Your task to perform on an android device: turn on translation in the chrome app Image 0: 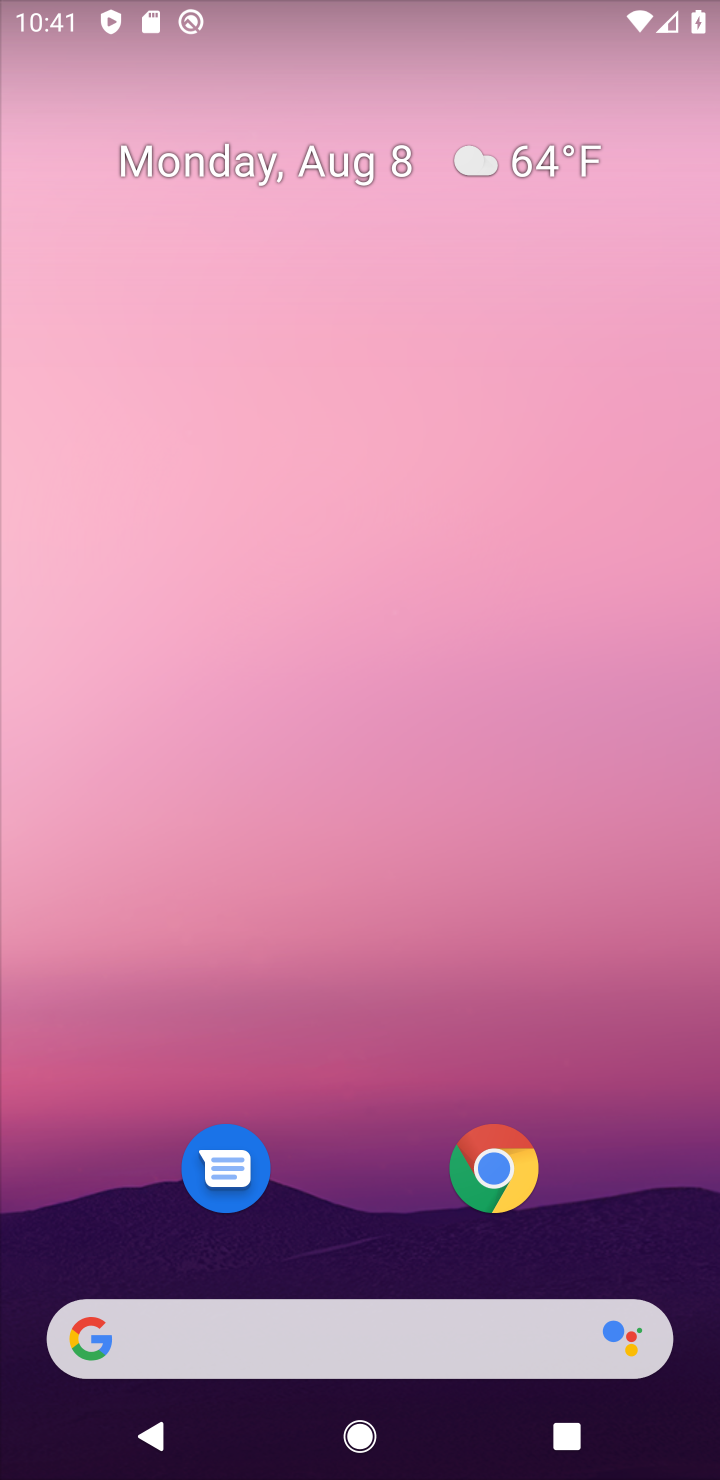
Step 0: click (511, 1171)
Your task to perform on an android device: turn on translation in the chrome app Image 1: 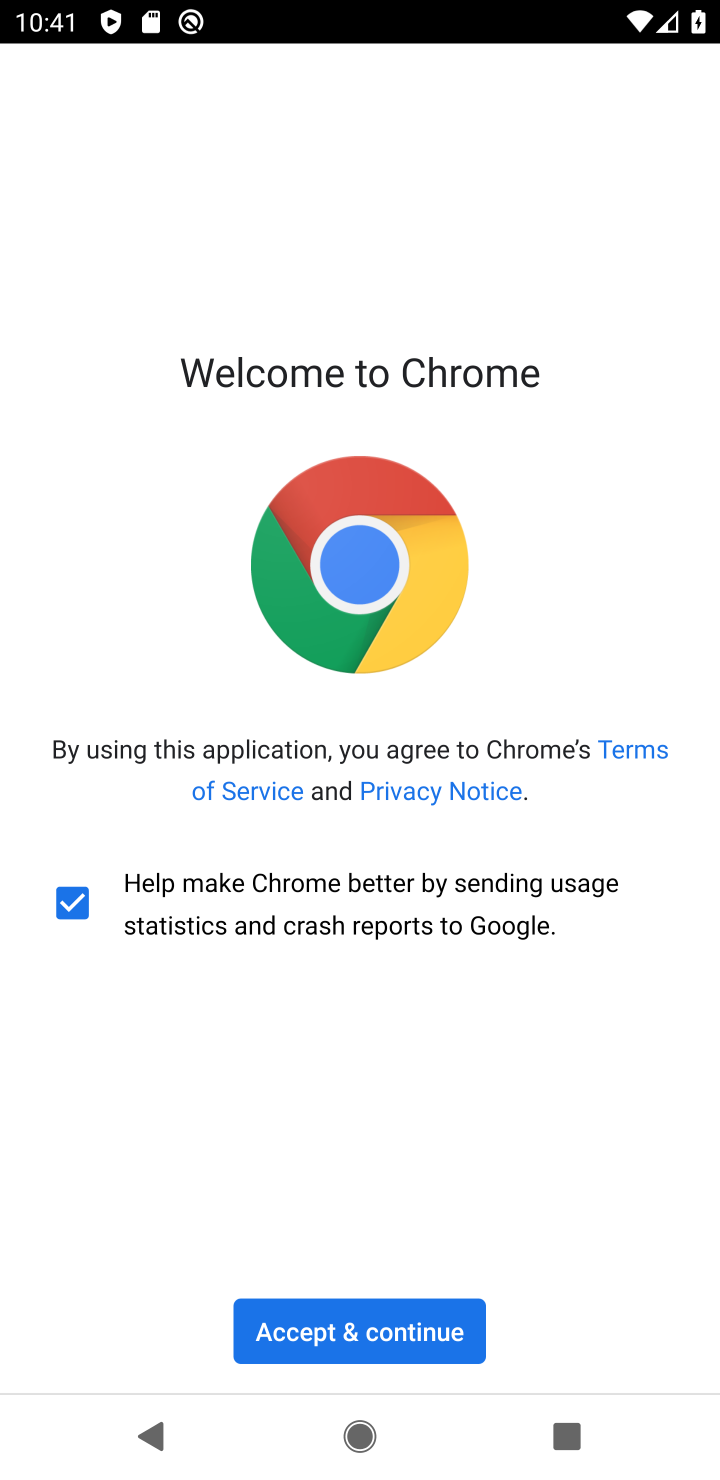
Step 1: click (347, 1327)
Your task to perform on an android device: turn on translation in the chrome app Image 2: 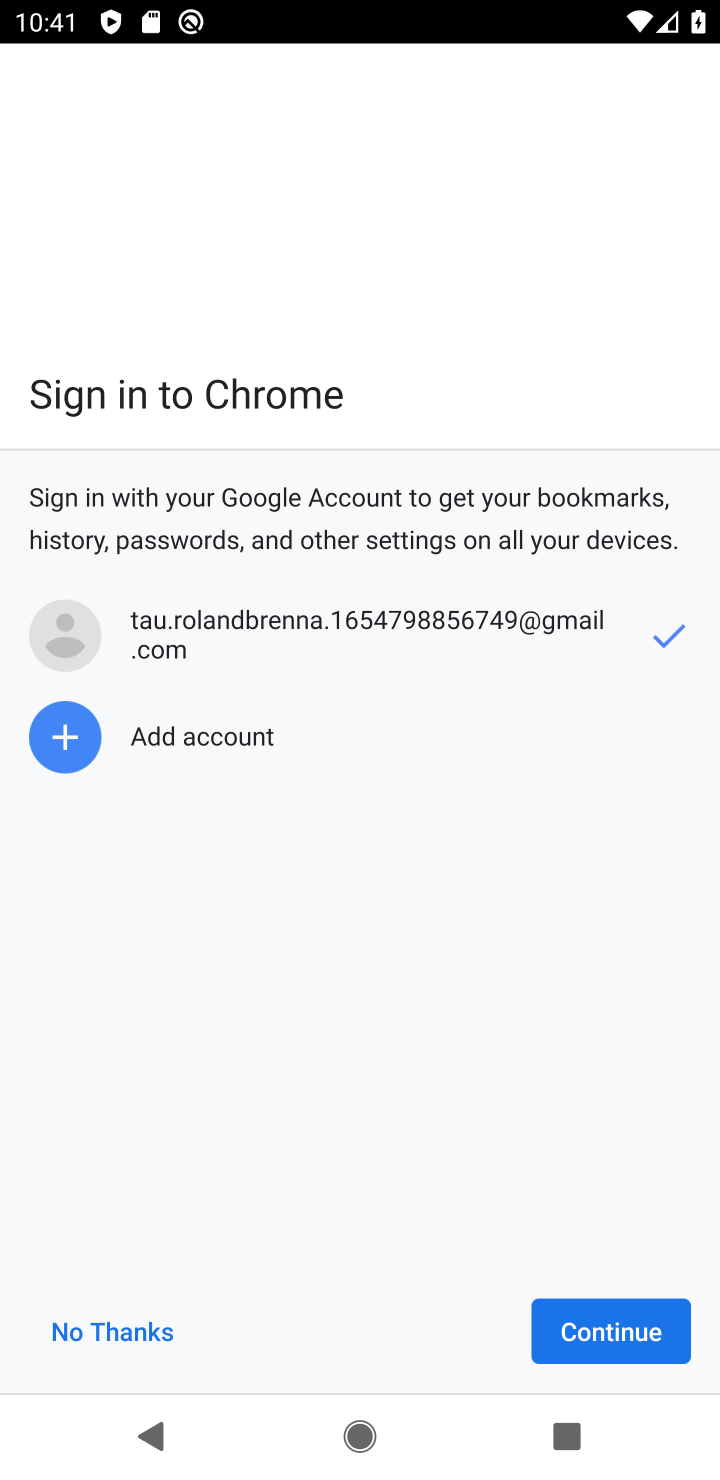
Step 2: click (83, 1322)
Your task to perform on an android device: turn on translation in the chrome app Image 3: 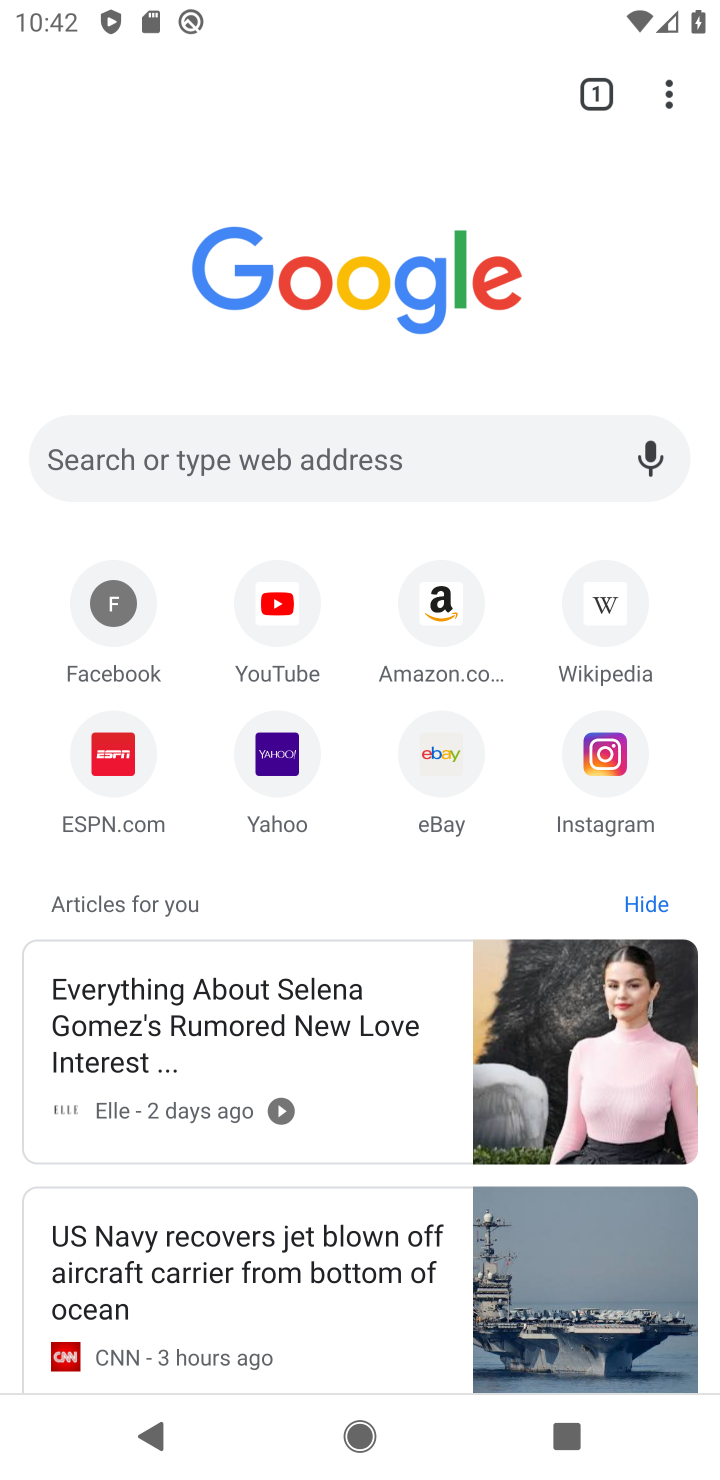
Step 3: task complete